Your task to perform on an android device: Open calendar and show me the fourth week of next month Image 0: 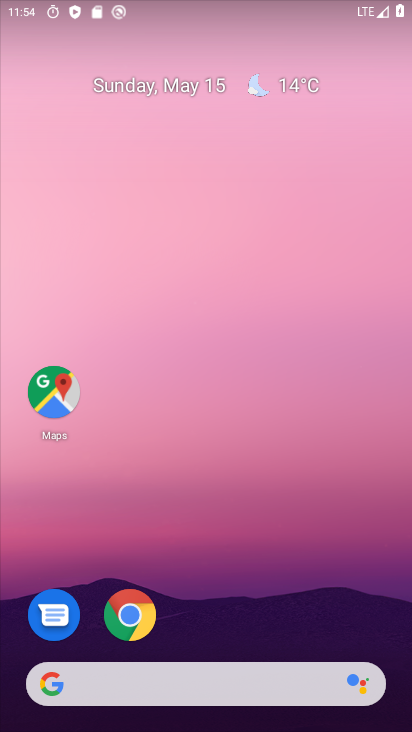
Step 0: drag from (279, 611) to (284, 149)
Your task to perform on an android device: Open calendar and show me the fourth week of next month Image 1: 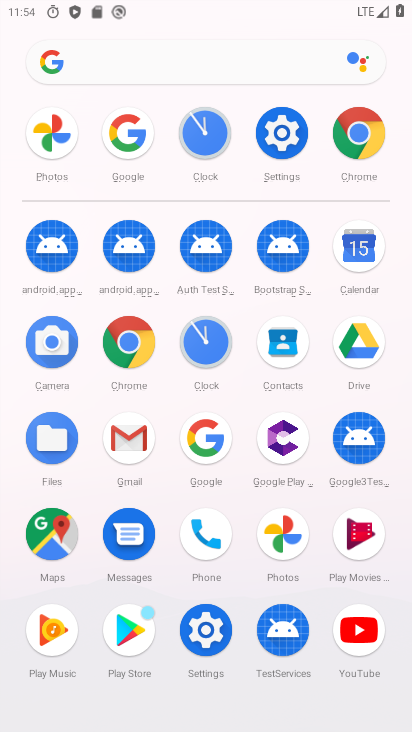
Step 1: click (359, 262)
Your task to perform on an android device: Open calendar and show me the fourth week of next month Image 2: 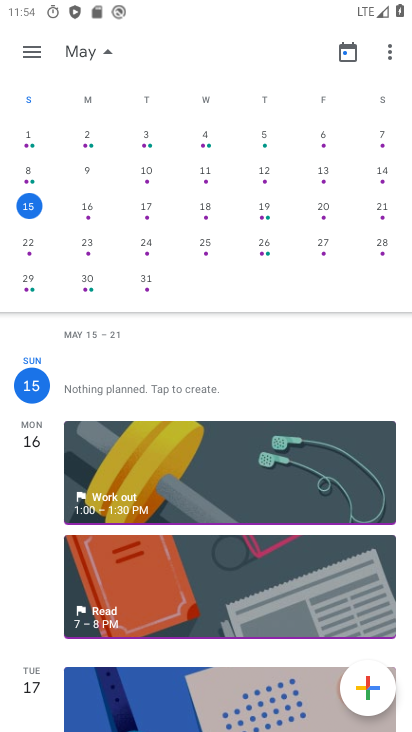
Step 2: drag from (352, 204) to (131, 377)
Your task to perform on an android device: Open calendar and show me the fourth week of next month Image 3: 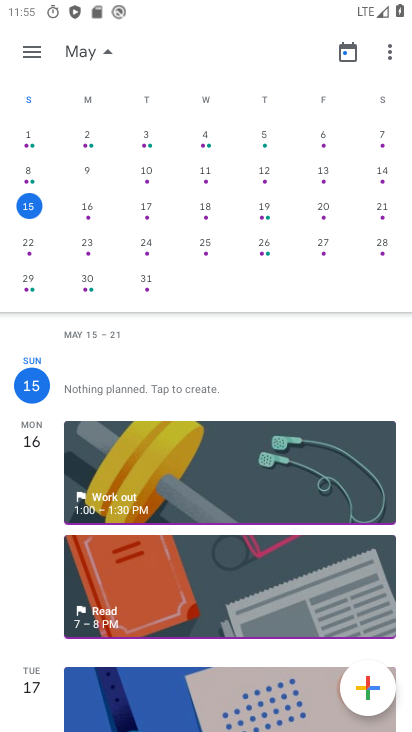
Step 3: click (384, 254)
Your task to perform on an android device: Open calendar and show me the fourth week of next month Image 4: 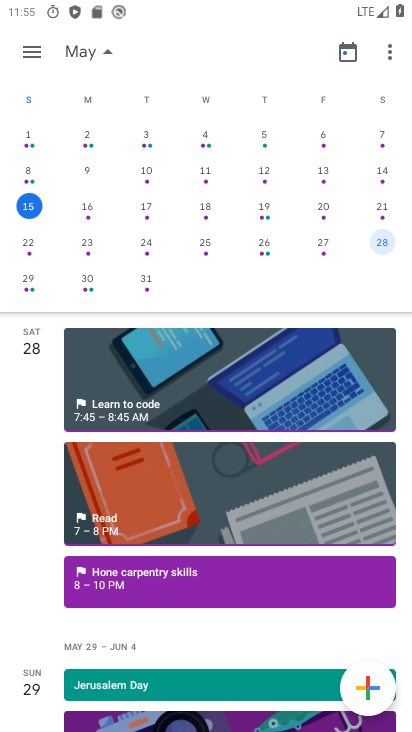
Step 4: click (385, 251)
Your task to perform on an android device: Open calendar and show me the fourth week of next month Image 5: 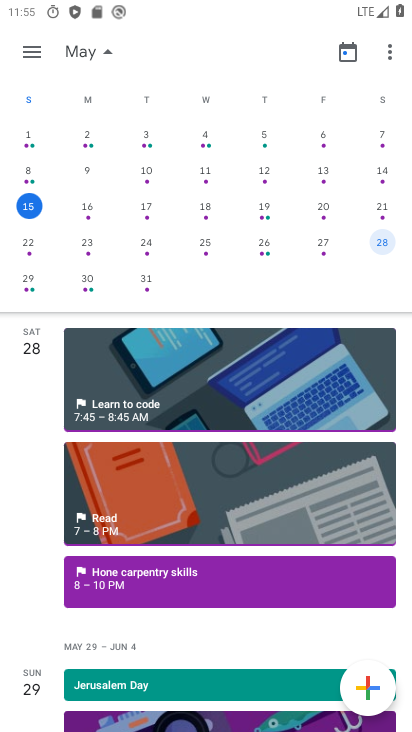
Step 5: task complete